Your task to perform on an android device: open wifi settings Image 0: 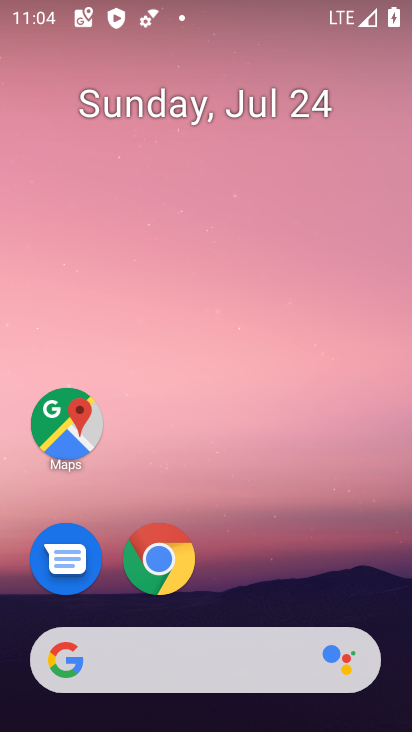
Step 0: drag from (277, 8) to (244, 671)
Your task to perform on an android device: open wifi settings Image 1: 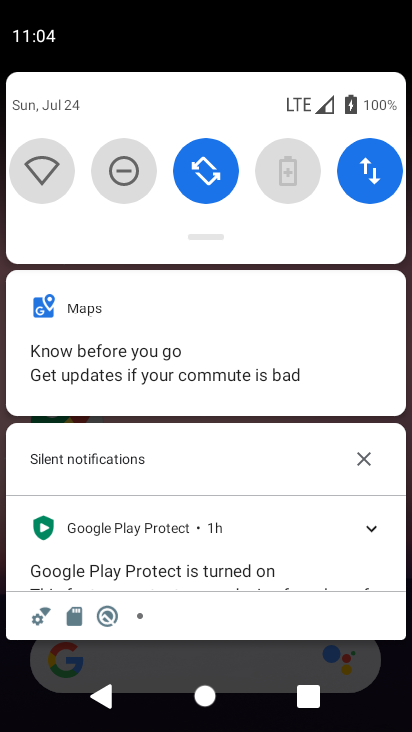
Step 1: click (31, 171)
Your task to perform on an android device: open wifi settings Image 2: 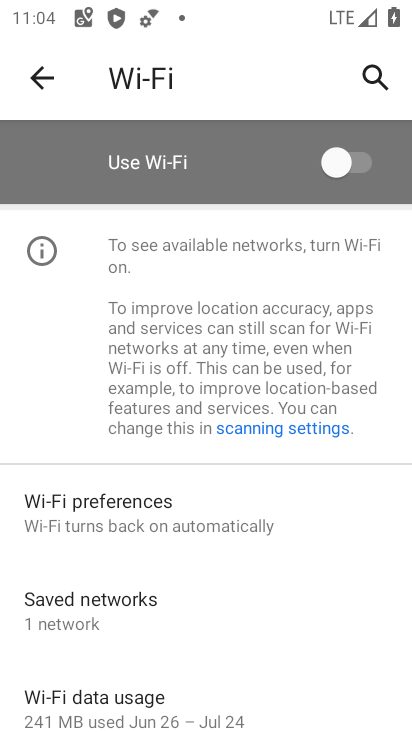
Step 2: task complete